Your task to perform on an android device: turn on notifications settings in the gmail app Image 0: 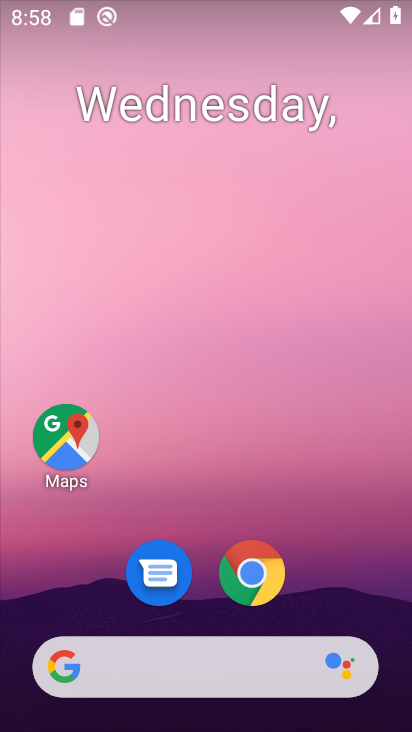
Step 0: drag from (77, 607) to (264, 80)
Your task to perform on an android device: turn on notifications settings in the gmail app Image 1: 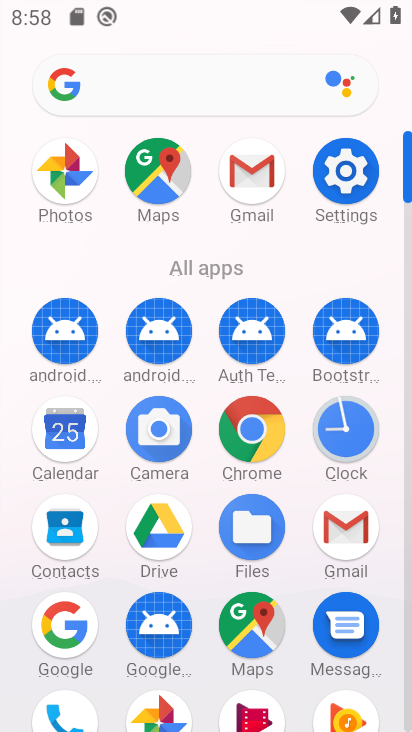
Step 1: click (340, 534)
Your task to perform on an android device: turn on notifications settings in the gmail app Image 2: 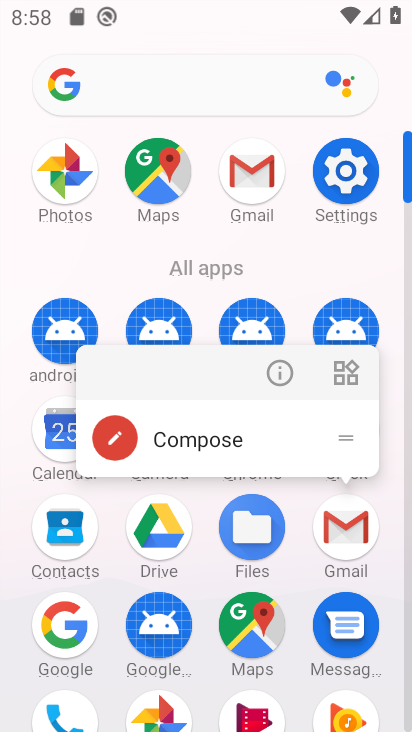
Step 2: click (341, 532)
Your task to perform on an android device: turn on notifications settings in the gmail app Image 3: 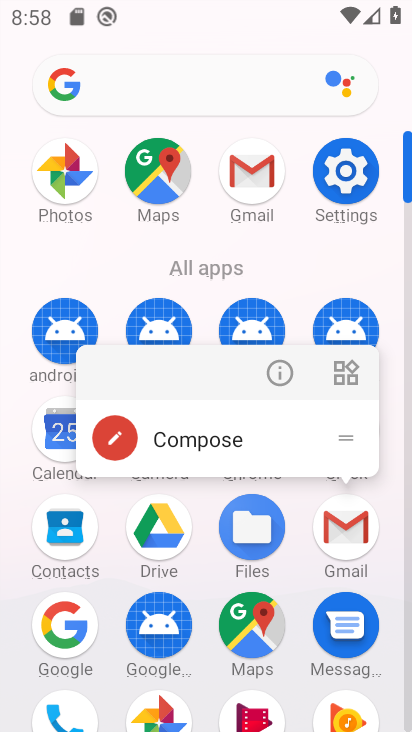
Step 3: click (346, 532)
Your task to perform on an android device: turn on notifications settings in the gmail app Image 4: 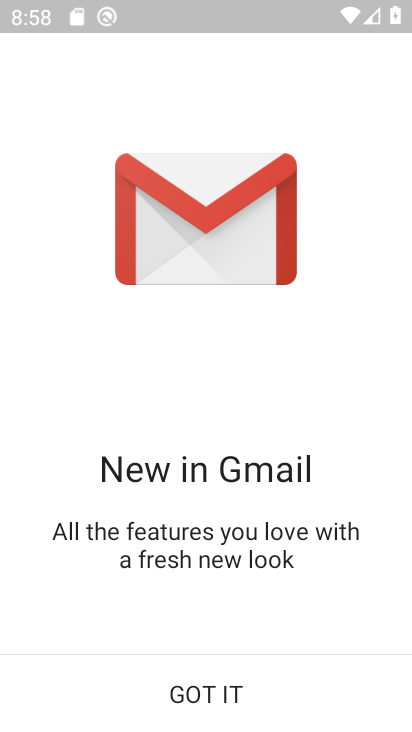
Step 4: click (253, 683)
Your task to perform on an android device: turn on notifications settings in the gmail app Image 5: 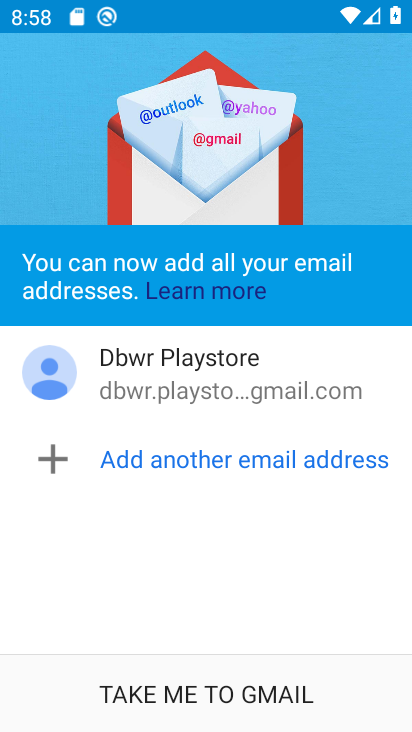
Step 5: click (253, 683)
Your task to perform on an android device: turn on notifications settings in the gmail app Image 6: 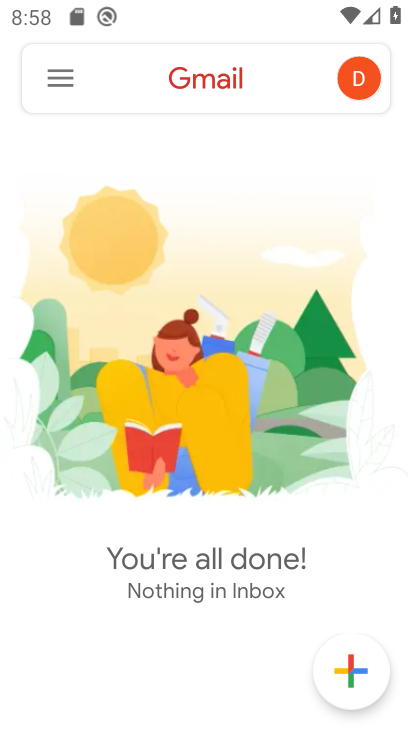
Step 6: click (63, 88)
Your task to perform on an android device: turn on notifications settings in the gmail app Image 7: 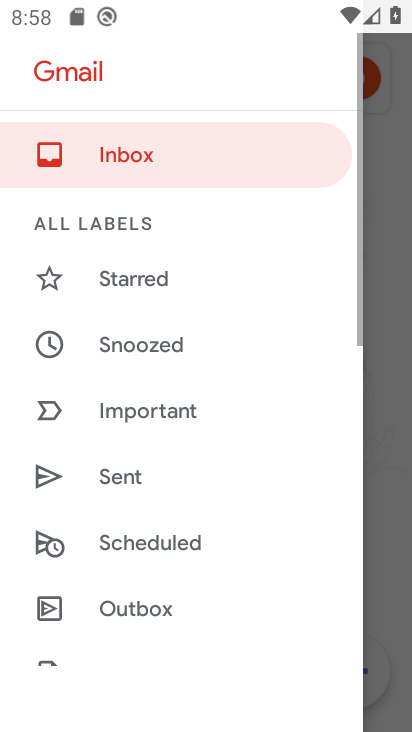
Step 7: drag from (120, 585) to (284, 125)
Your task to perform on an android device: turn on notifications settings in the gmail app Image 8: 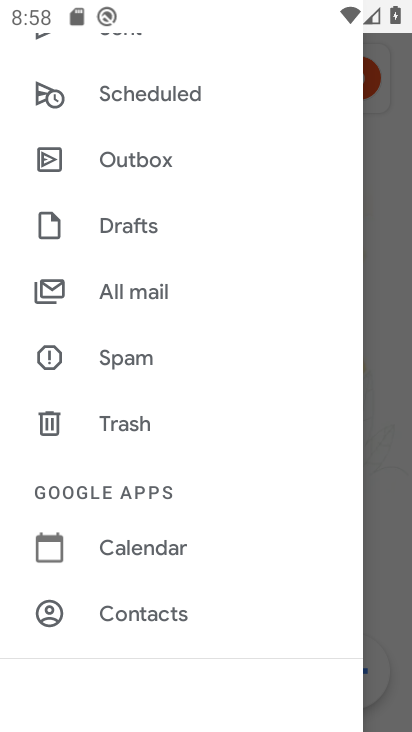
Step 8: drag from (165, 610) to (283, 207)
Your task to perform on an android device: turn on notifications settings in the gmail app Image 9: 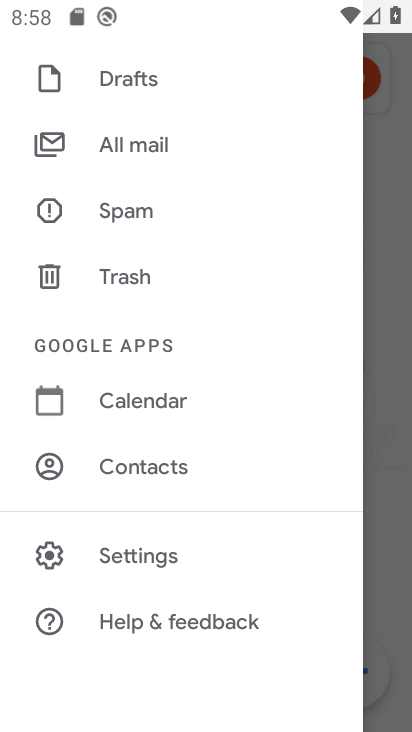
Step 9: click (175, 561)
Your task to perform on an android device: turn on notifications settings in the gmail app Image 10: 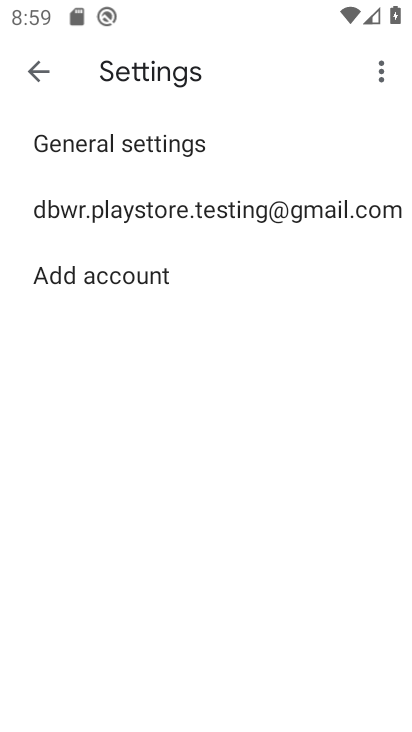
Step 10: click (231, 213)
Your task to perform on an android device: turn on notifications settings in the gmail app Image 11: 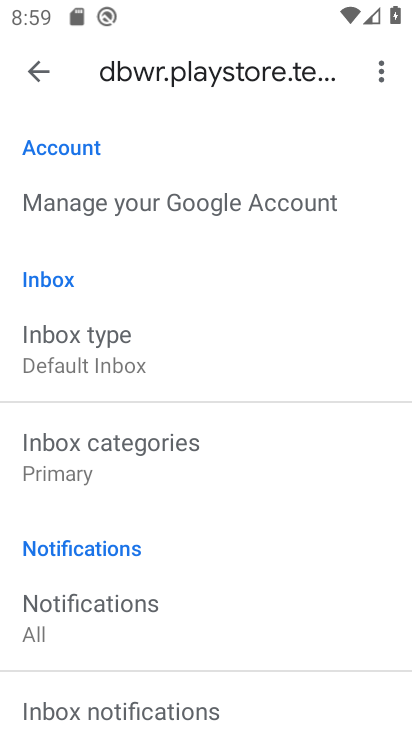
Step 11: drag from (209, 556) to (301, 219)
Your task to perform on an android device: turn on notifications settings in the gmail app Image 12: 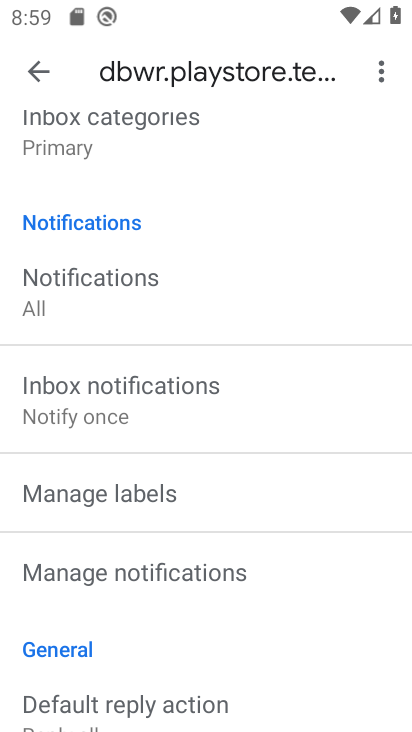
Step 12: click (185, 587)
Your task to perform on an android device: turn on notifications settings in the gmail app Image 13: 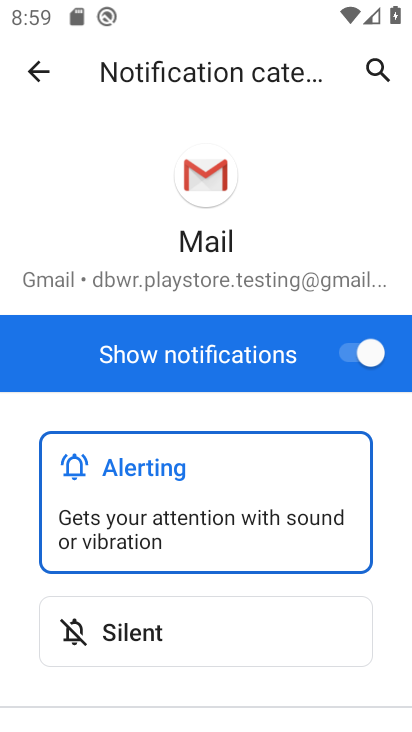
Step 13: task complete